Your task to perform on an android device: toggle priority inbox in the gmail app Image 0: 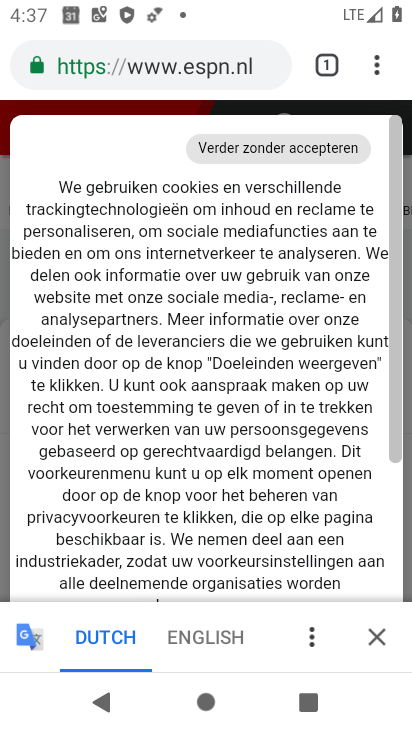
Step 0: press home button
Your task to perform on an android device: toggle priority inbox in the gmail app Image 1: 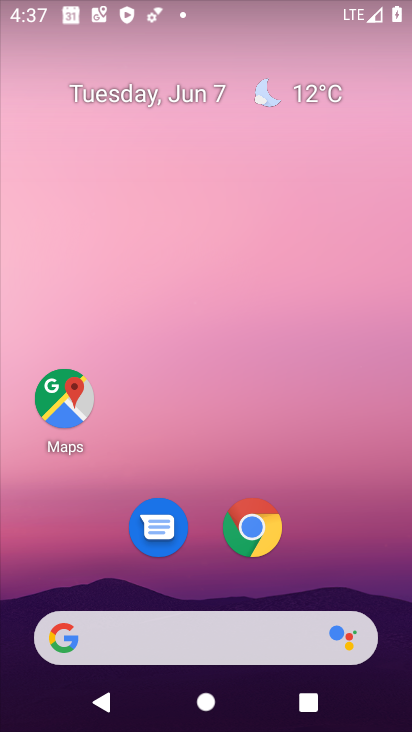
Step 1: drag from (337, 570) to (227, 91)
Your task to perform on an android device: toggle priority inbox in the gmail app Image 2: 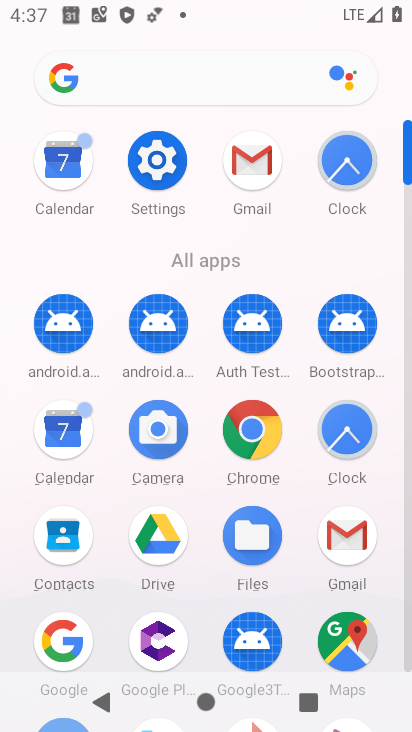
Step 2: click (249, 158)
Your task to perform on an android device: toggle priority inbox in the gmail app Image 3: 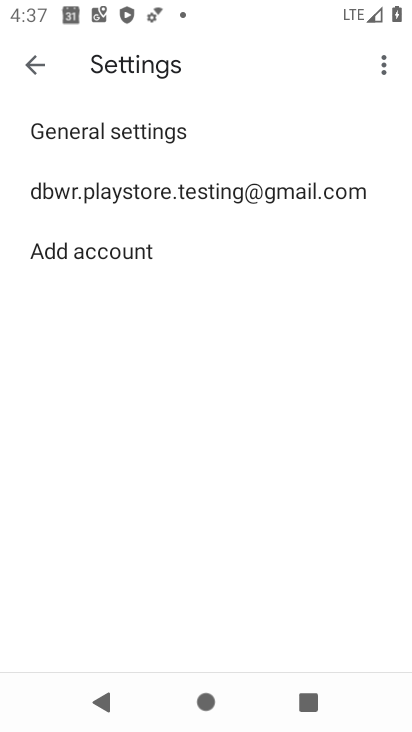
Step 3: click (168, 188)
Your task to perform on an android device: toggle priority inbox in the gmail app Image 4: 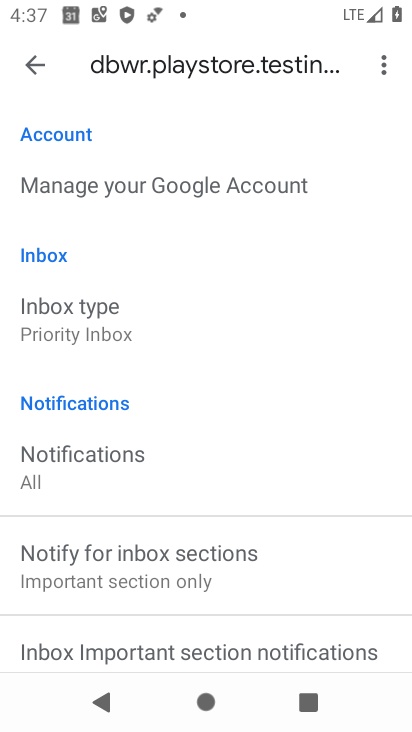
Step 4: click (92, 304)
Your task to perform on an android device: toggle priority inbox in the gmail app Image 5: 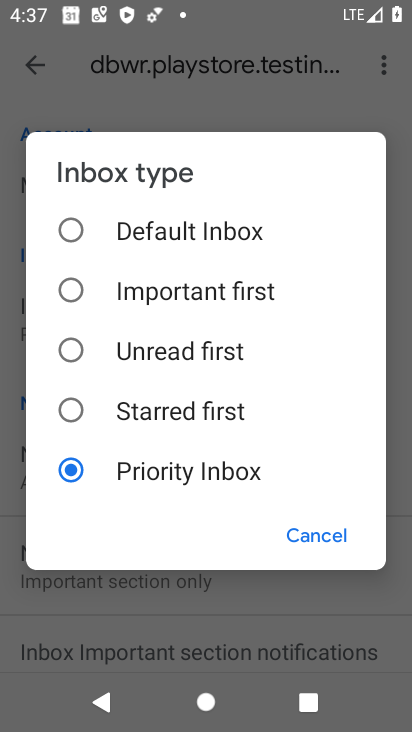
Step 5: click (72, 286)
Your task to perform on an android device: toggle priority inbox in the gmail app Image 6: 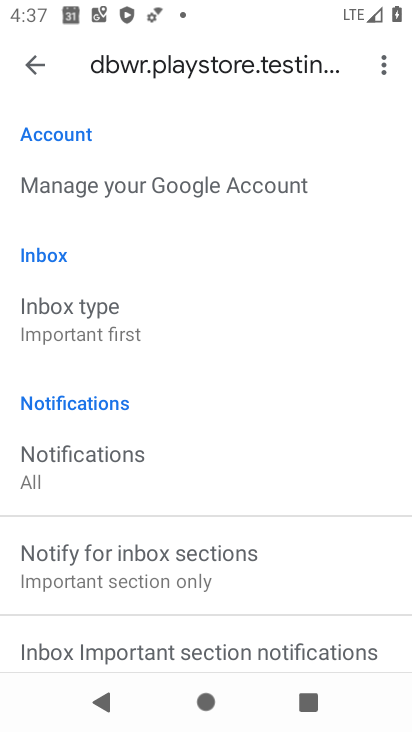
Step 6: task complete